Your task to perform on an android device: Clear all items from cart on amazon.com. Add lenovo thinkpad to the cart on amazon.com Image 0: 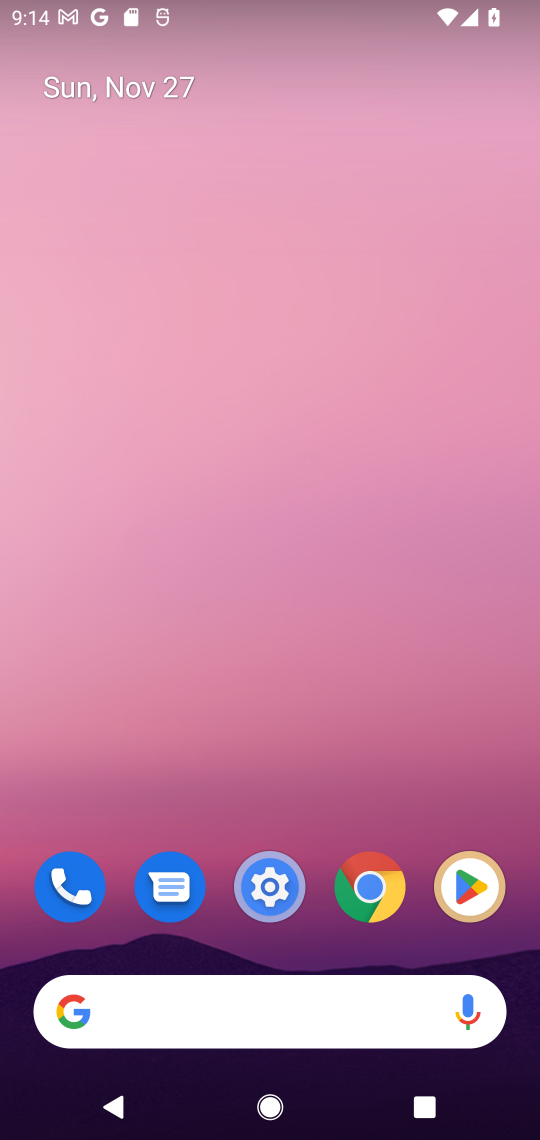
Step 0: press home button
Your task to perform on an android device: Clear all items from cart on amazon.com. Add lenovo thinkpad to the cart on amazon.com Image 1: 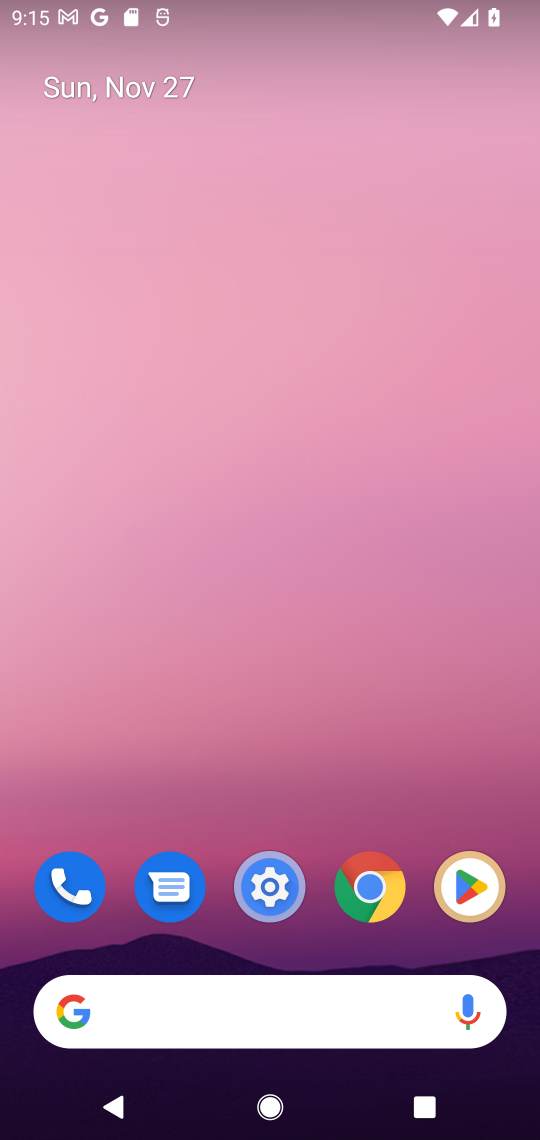
Step 1: click (288, 1001)
Your task to perform on an android device: Clear all items from cart on amazon.com. Add lenovo thinkpad to the cart on amazon.com Image 2: 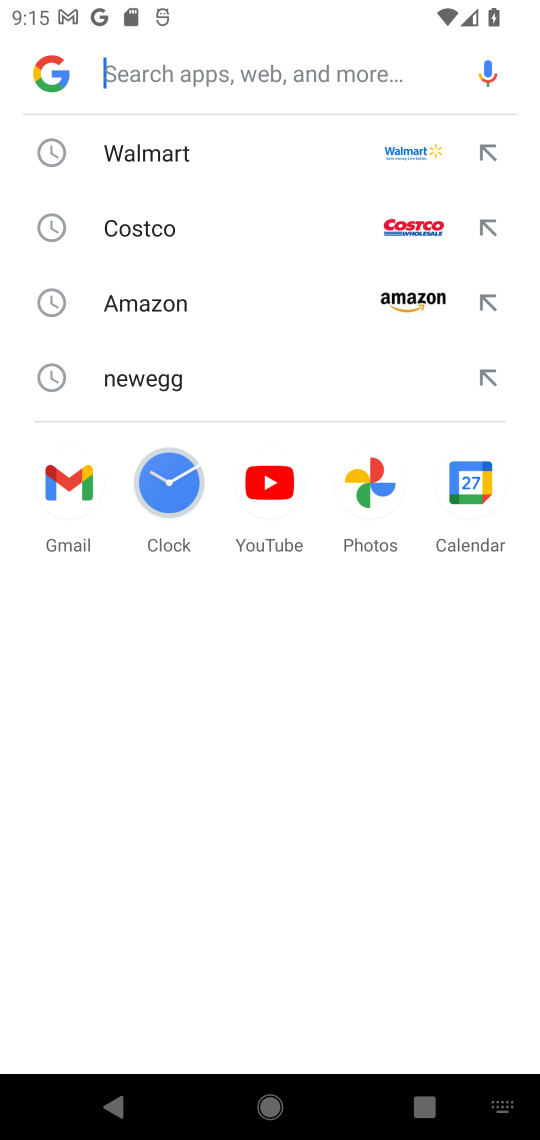
Step 2: click (359, 300)
Your task to perform on an android device: Clear all items from cart on amazon.com. Add lenovo thinkpad to the cart on amazon.com Image 3: 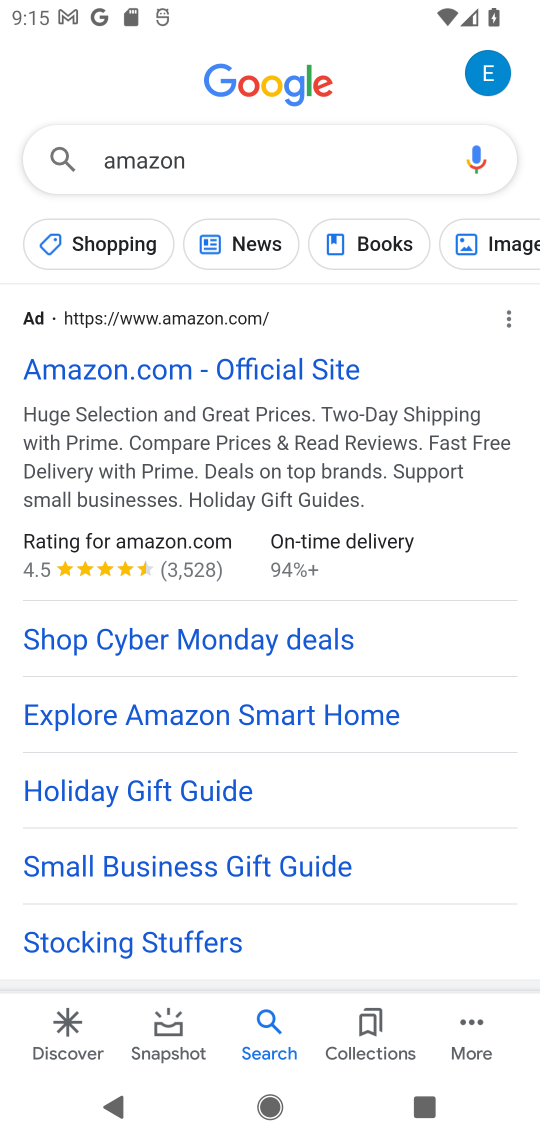
Step 3: click (286, 357)
Your task to perform on an android device: Clear all items from cart on amazon.com. Add lenovo thinkpad to the cart on amazon.com Image 4: 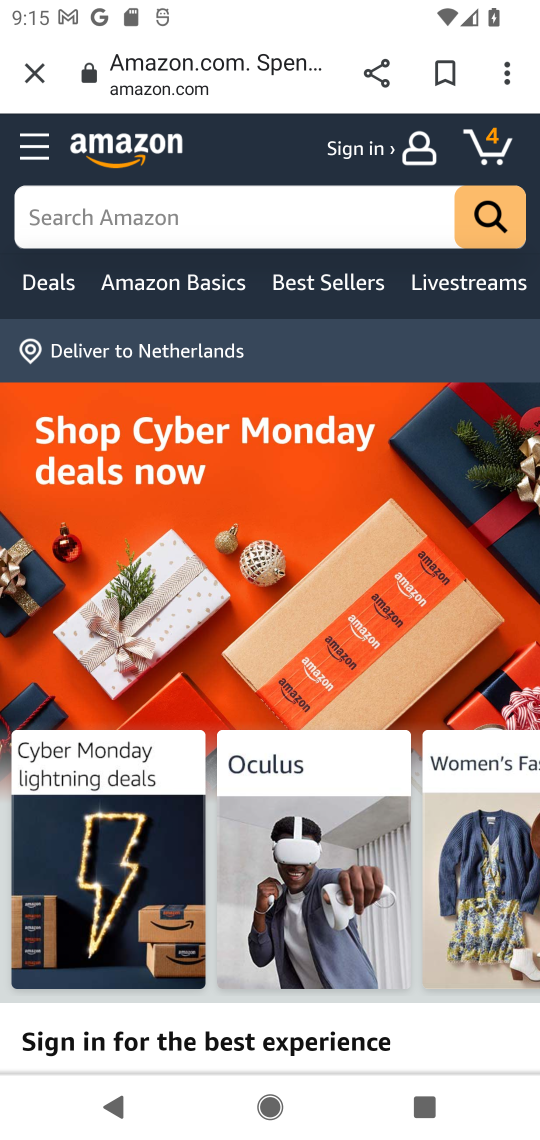
Step 4: click (127, 225)
Your task to perform on an android device: Clear all items from cart on amazon.com. Add lenovo thinkpad to the cart on amazon.com Image 5: 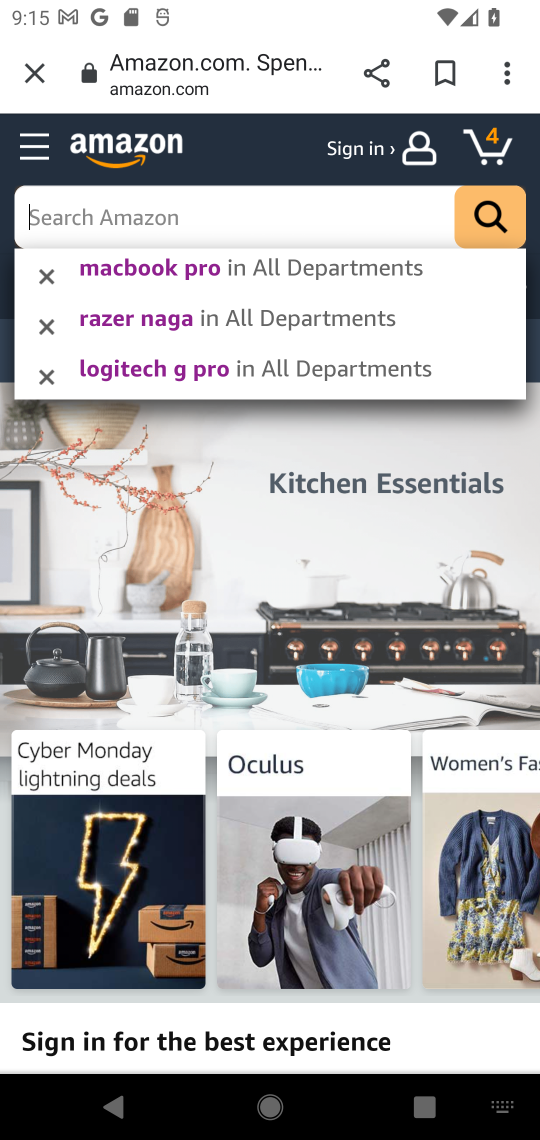
Step 5: type "lenovo thinkpad"
Your task to perform on an android device: Clear all items from cart on amazon.com. Add lenovo thinkpad to the cart on amazon.com Image 6: 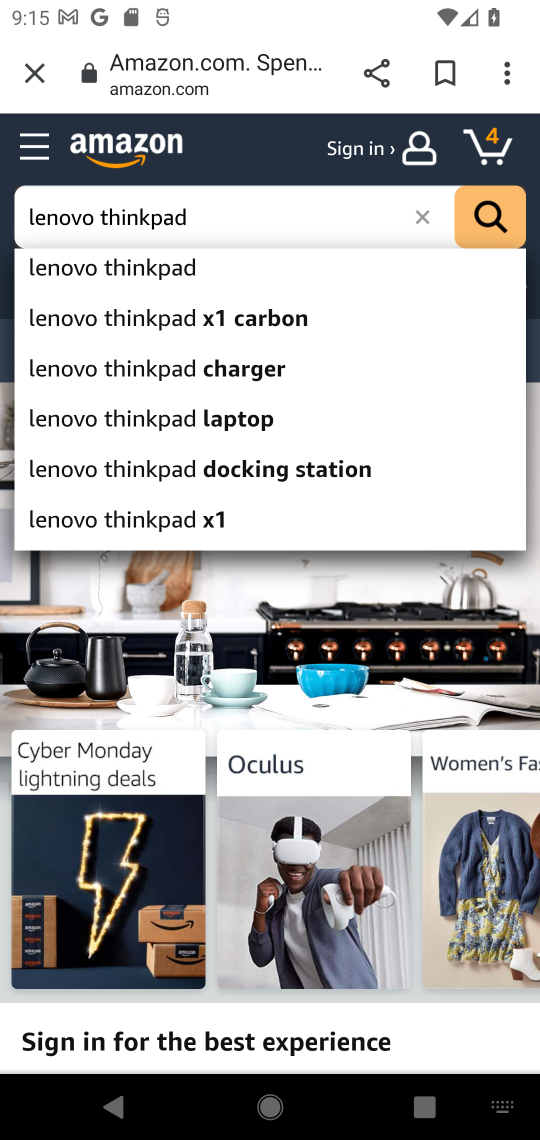
Step 6: click (257, 263)
Your task to perform on an android device: Clear all items from cart on amazon.com. Add lenovo thinkpad to the cart on amazon.com Image 7: 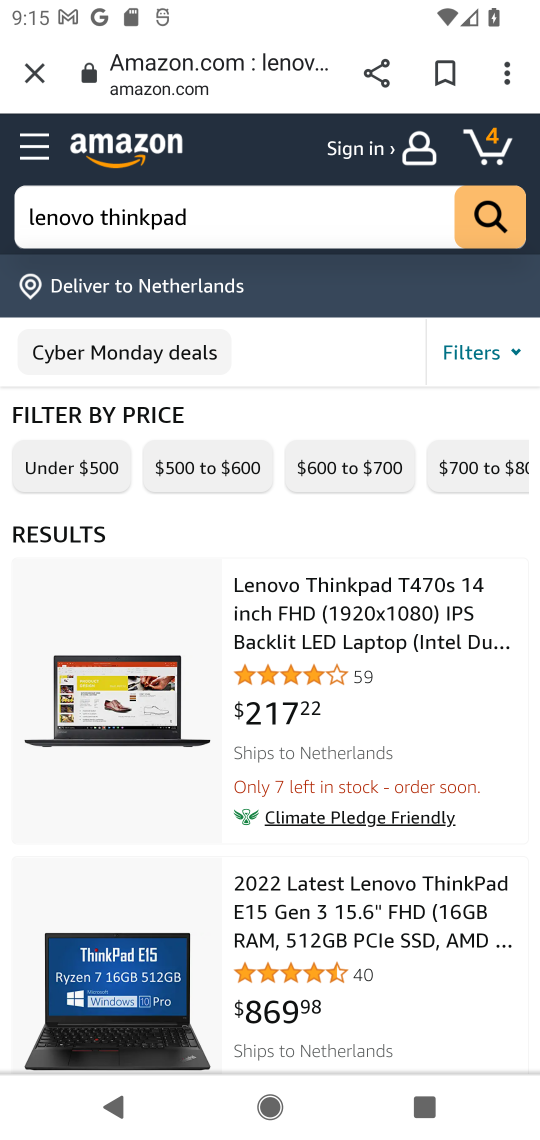
Step 7: click (330, 594)
Your task to perform on an android device: Clear all items from cart on amazon.com. Add lenovo thinkpad to the cart on amazon.com Image 8: 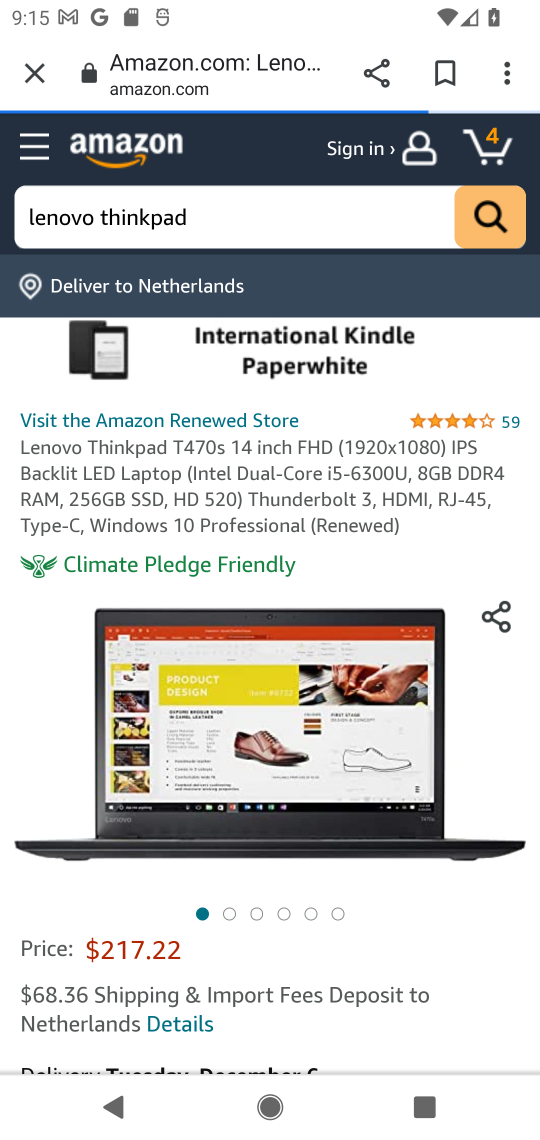
Step 8: drag from (449, 937) to (277, 373)
Your task to perform on an android device: Clear all items from cart on amazon.com. Add lenovo thinkpad to the cart on amazon.com Image 9: 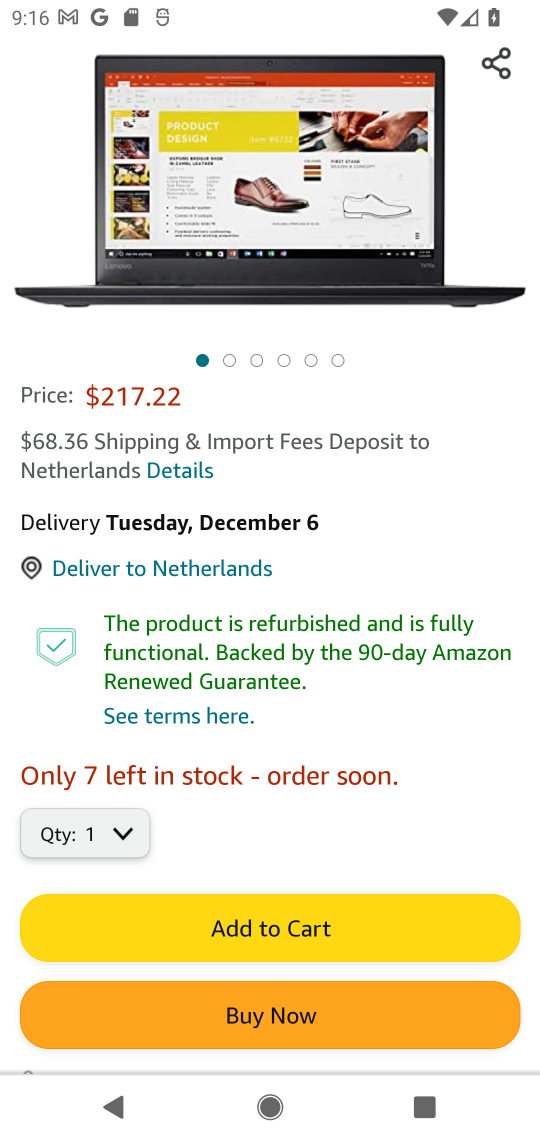
Step 9: click (442, 910)
Your task to perform on an android device: Clear all items from cart on amazon.com. Add lenovo thinkpad to the cart on amazon.com Image 10: 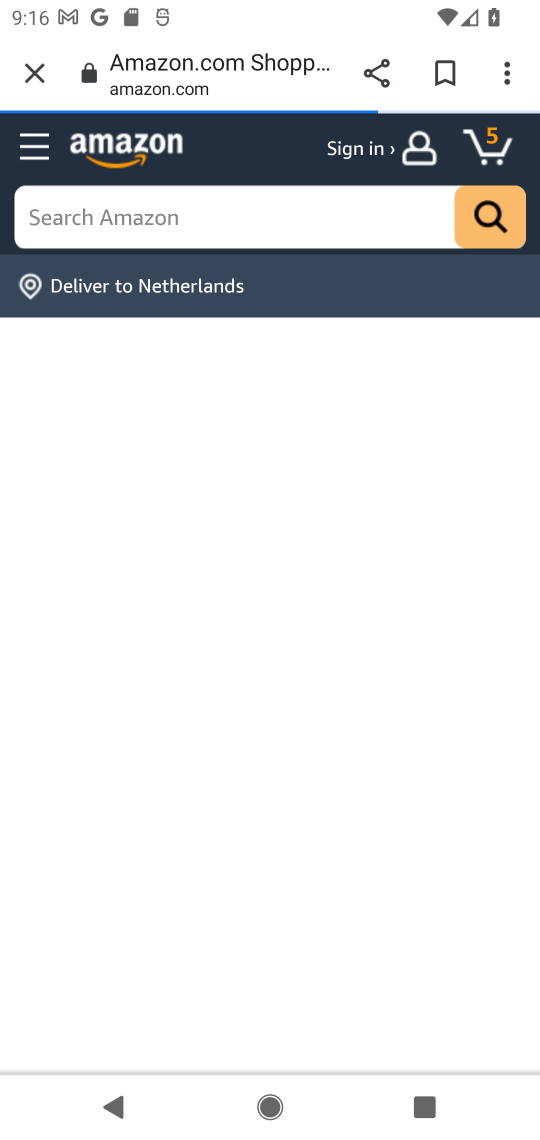
Step 10: task complete